Your task to perform on an android device: Open settings on Google Maps Image 0: 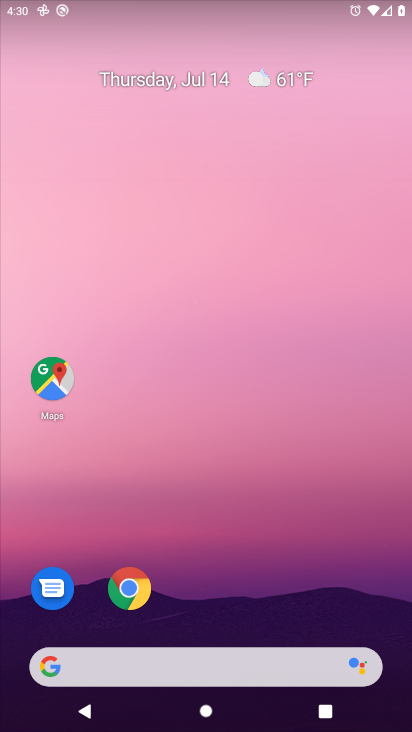
Step 0: drag from (206, 635) to (210, 40)
Your task to perform on an android device: Open settings on Google Maps Image 1: 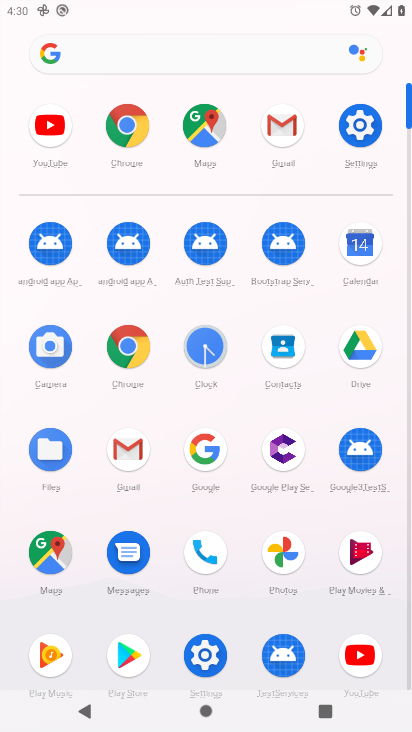
Step 1: click (52, 565)
Your task to perform on an android device: Open settings on Google Maps Image 2: 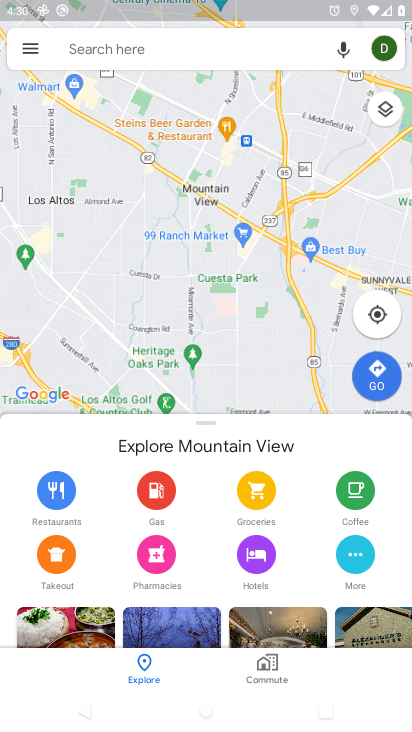
Step 2: click (25, 41)
Your task to perform on an android device: Open settings on Google Maps Image 3: 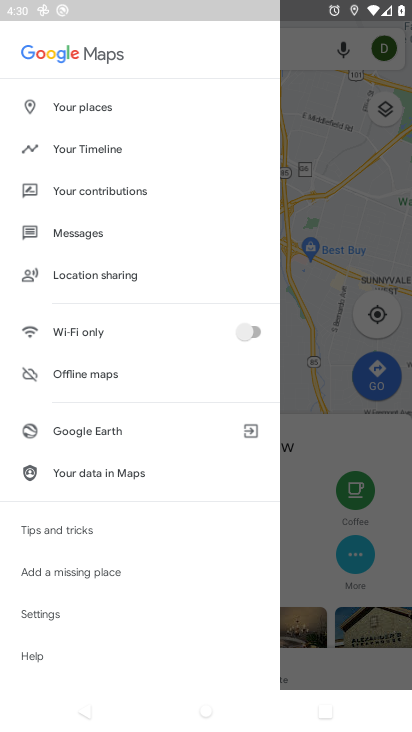
Step 3: click (41, 614)
Your task to perform on an android device: Open settings on Google Maps Image 4: 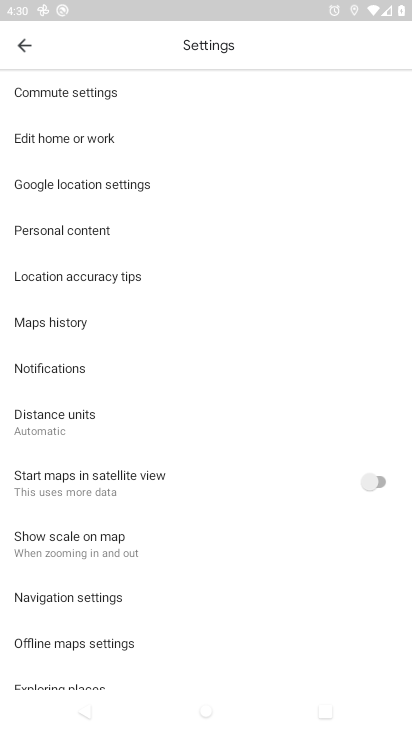
Step 4: task complete